Your task to perform on an android device: turn off data saver in the chrome app Image 0: 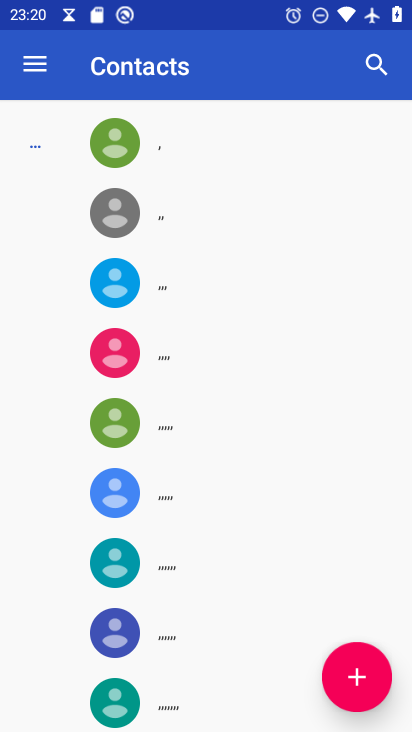
Step 0: press home button
Your task to perform on an android device: turn off data saver in the chrome app Image 1: 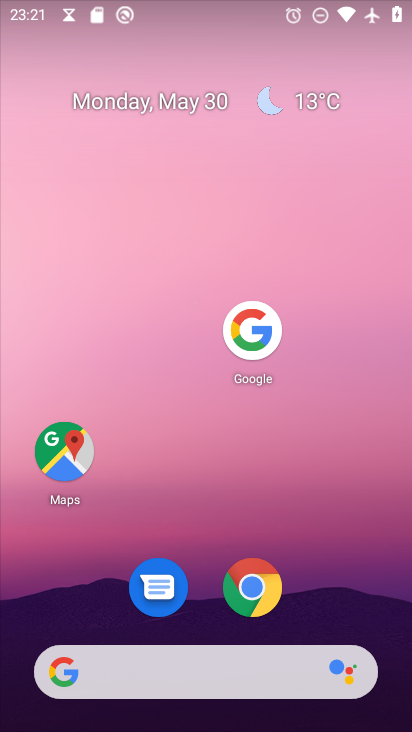
Step 1: click (264, 588)
Your task to perform on an android device: turn off data saver in the chrome app Image 2: 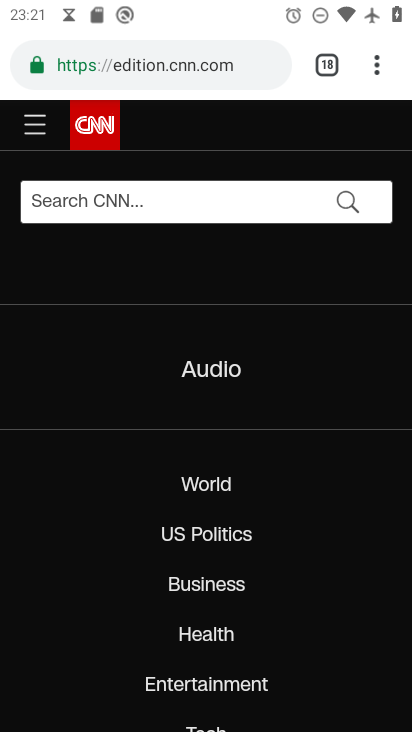
Step 2: drag from (375, 65) to (249, 649)
Your task to perform on an android device: turn off data saver in the chrome app Image 3: 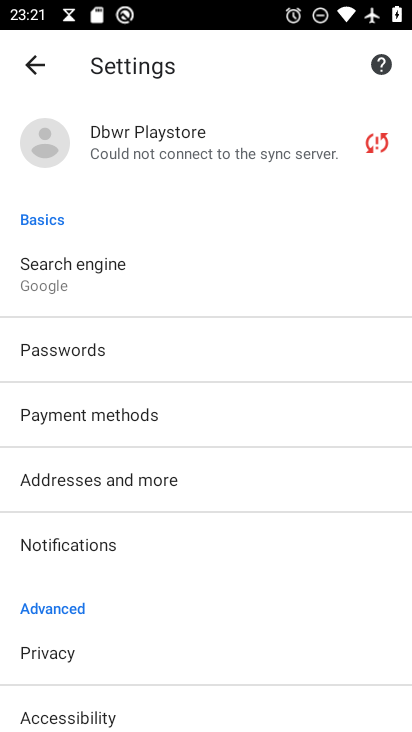
Step 3: drag from (212, 652) to (270, 165)
Your task to perform on an android device: turn off data saver in the chrome app Image 4: 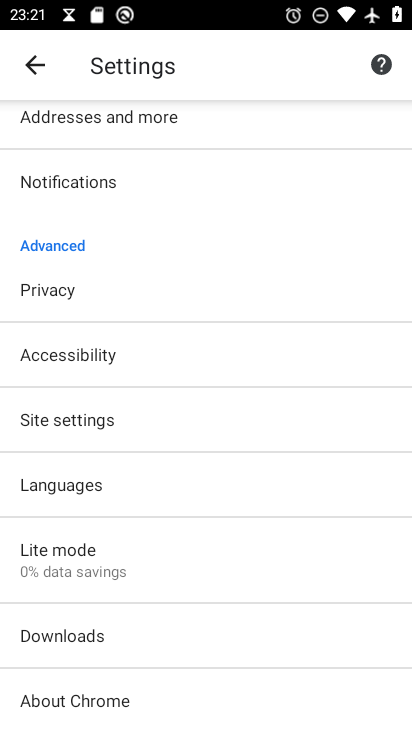
Step 4: click (97, 570)
Your task to perform on an android device: turn off data saver in the chrome app Image 5: 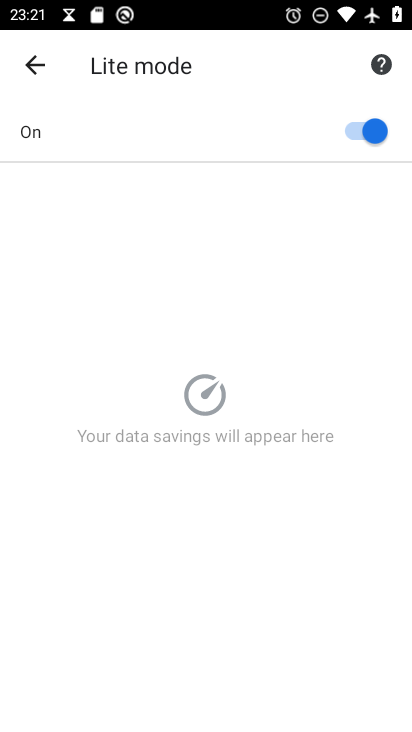
Step 5: click (359, 123)
Your task to perform on an android device: turn off data saver in the chrome app Image 6: 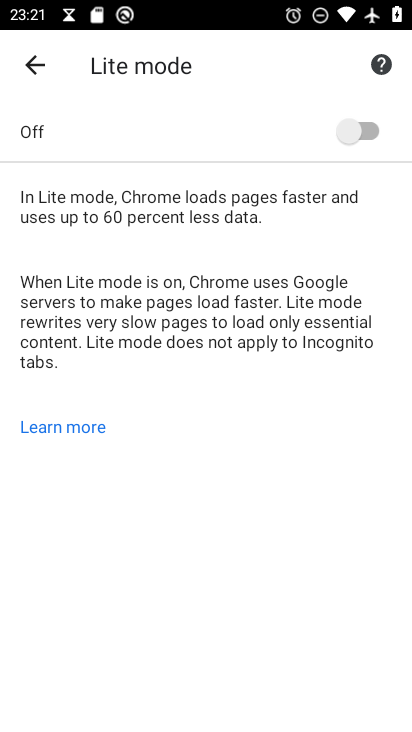
Step 6: task complete